Your task to perform on an android device: turn off smart reply in the gmail app Image 0: 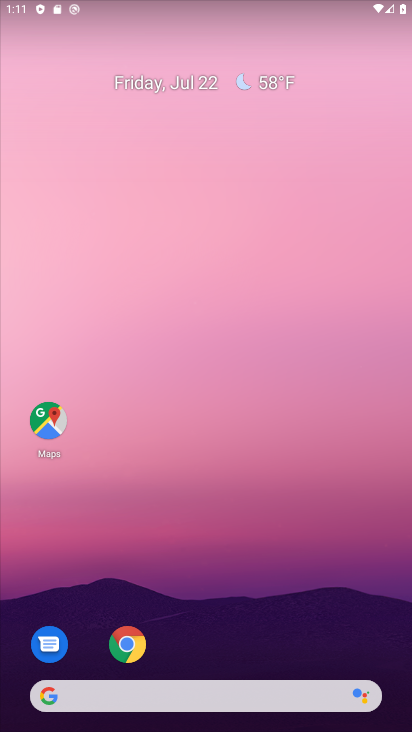
Step 0: click (225, 212)
Your task to perform on an android device: turn off smart reply in the gmail app Image 1: 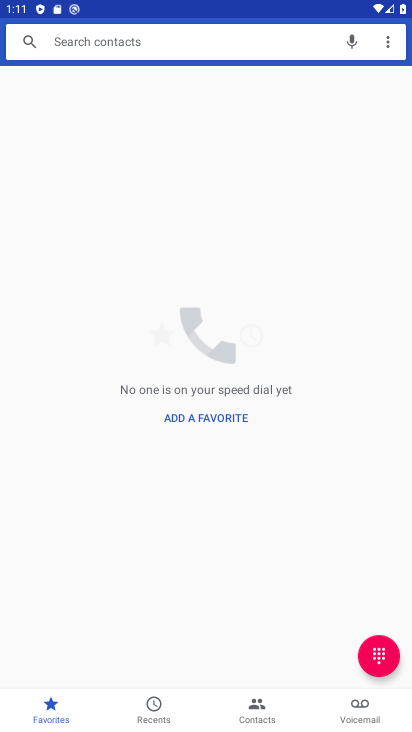
Step 1: press home button
Your task to perform on an android device: turn off smart reply in the gmail app Image 2: 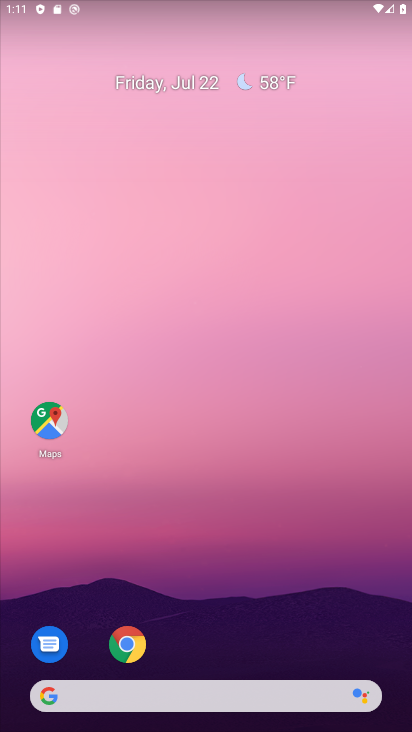
Step 2: drag from (76, 691) to (144, 222)
Your task to perform on an android device: turn off smart reply in the gmail app Image 3: 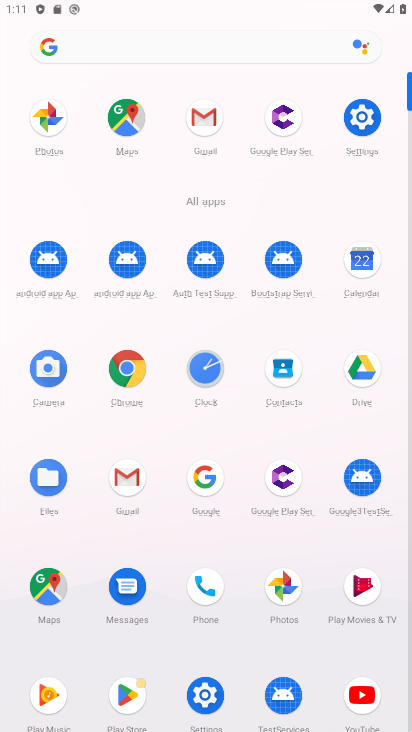
Step 3: click (138, 473)
Your task to perform on an android device: turn off smart reply in the gmail app Image 4: 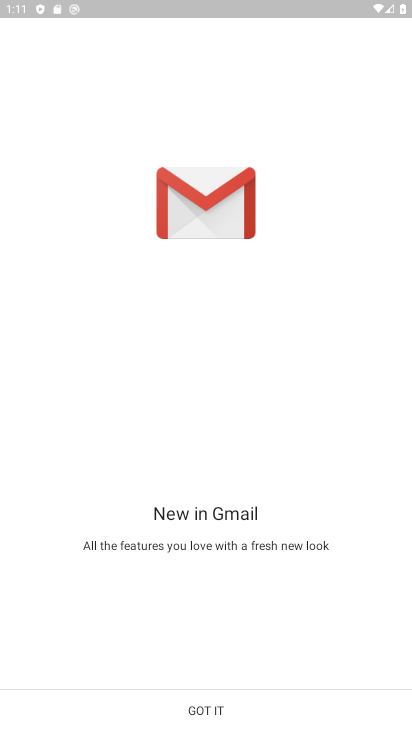
Step 4: click (191, 706)
Your task to perform on an android device: turn off smart reply in the gmail app Image 5: 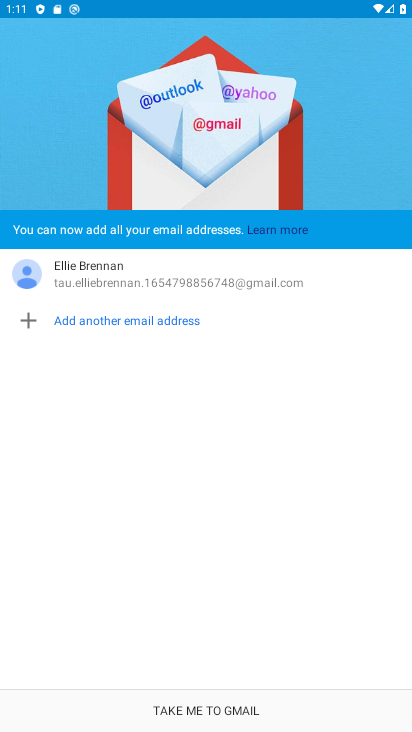
Step 5: click (175, 706)
Your task to perform on an android device: turn off smart reply in the gmail app Image 6: 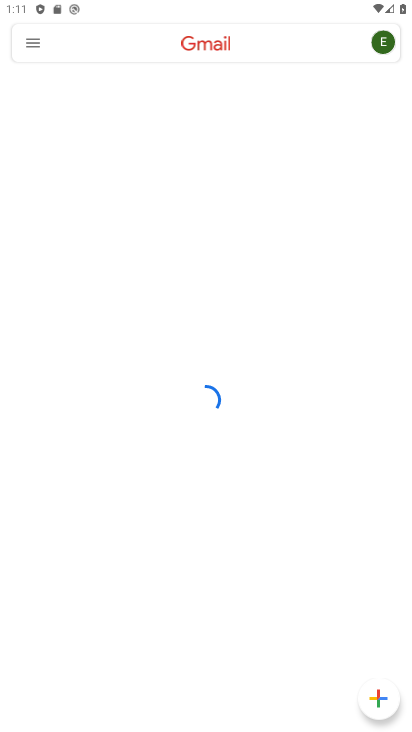
Step 6: click (33, 41)
Your task to perform on an android device: turn off smart reply in the gmail app Image 7: 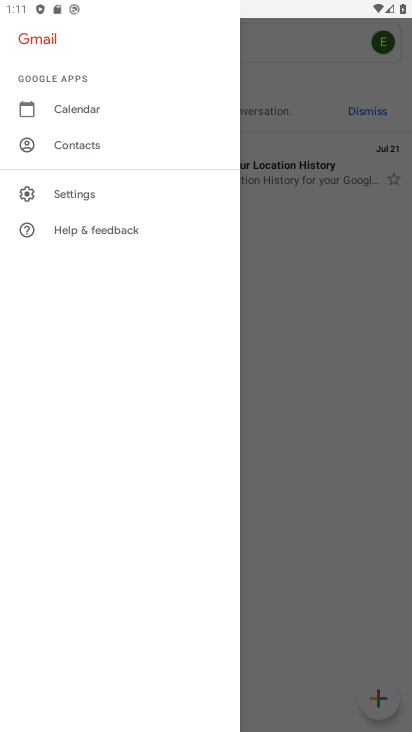
Step 7: click (82, 192)
Your task to perform on an android device: turn off smart reply in the gmail app Image 8: 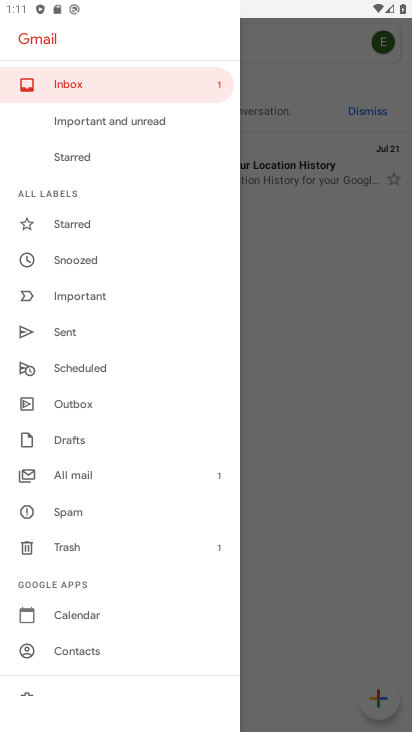
Step 8: drag from (132, 653) to (141, 230)
Your task to perform on an android device: turn off smart reply in the gmail app Image 9: 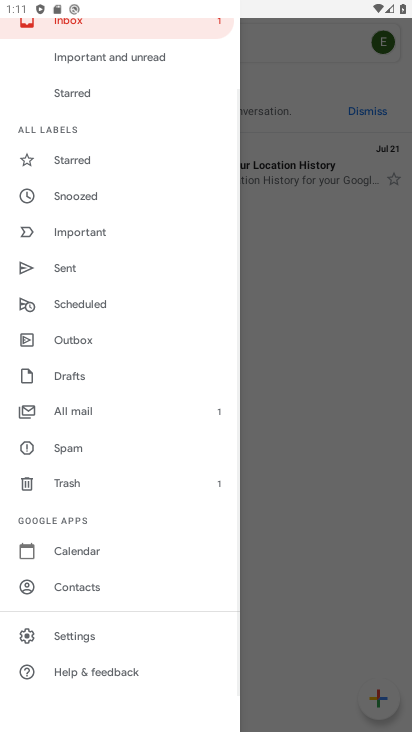
Step 9: click (71, 626)
Your task to perform on an android device: turn off smart reply in the gmail app Image 10: 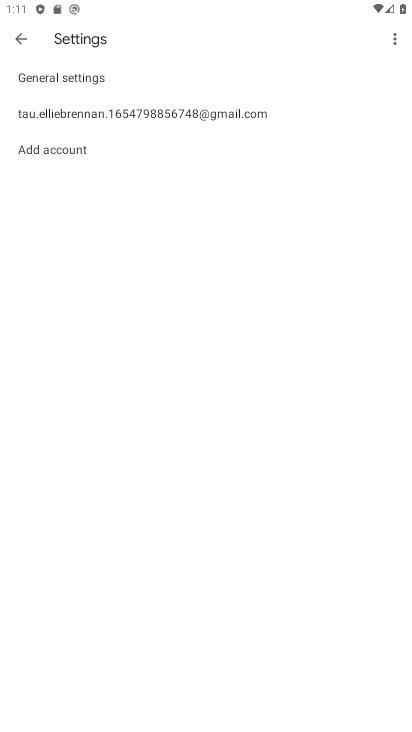
Step 10: click (127, 125)
Your task to perform on an android device: turn off smart reply in the gmail app Image 11: 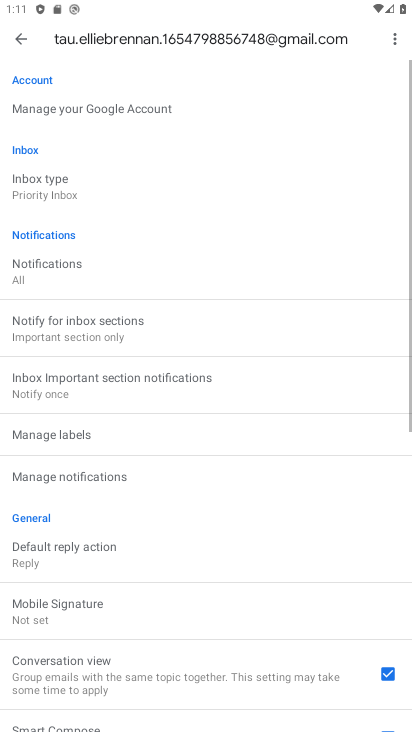
Step 11: drag from (144, 653) to (166, 228)
Your task to perform on an android device: turn off smart reply in the gmail app Image 12: 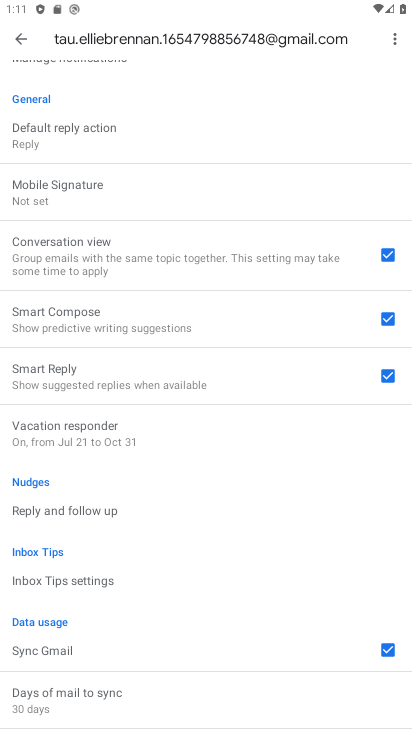
Step 12: click (395, 371)
Your task to perform on an android device: turn off smart reply in the gmail app Image 13: 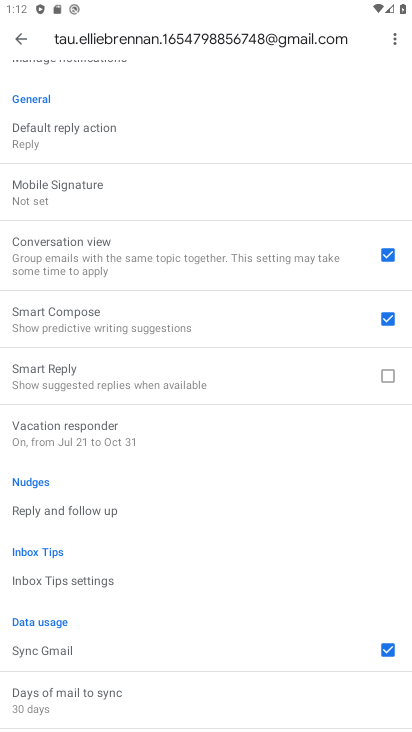
Step 13: task complete